Your task to perform on an android device: turn off javascript in the chrome app Image 0: 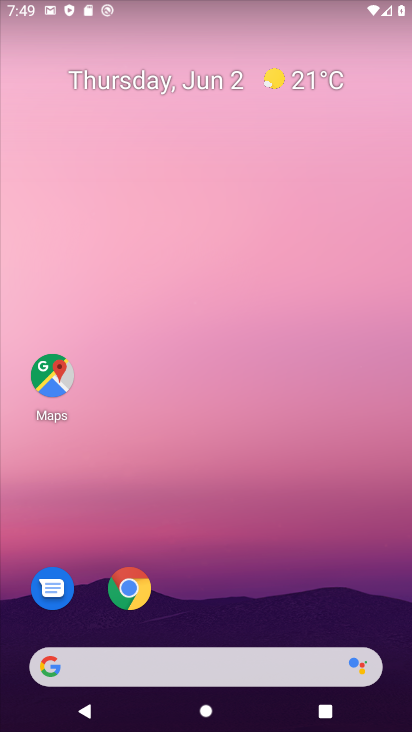
Step 0: click (142, 594)
Your task to perform on an android device: turn off javascript in the chrome app Image 1: 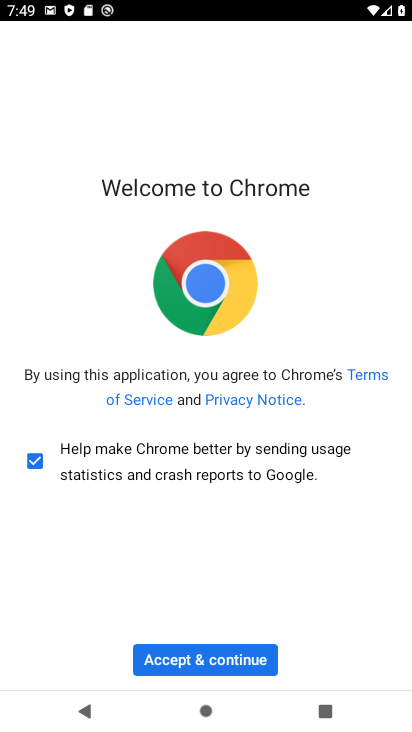
Step 1: click (212, 658)
Your task to perform on an android device: turn off javascript in the chrome app Image 2: 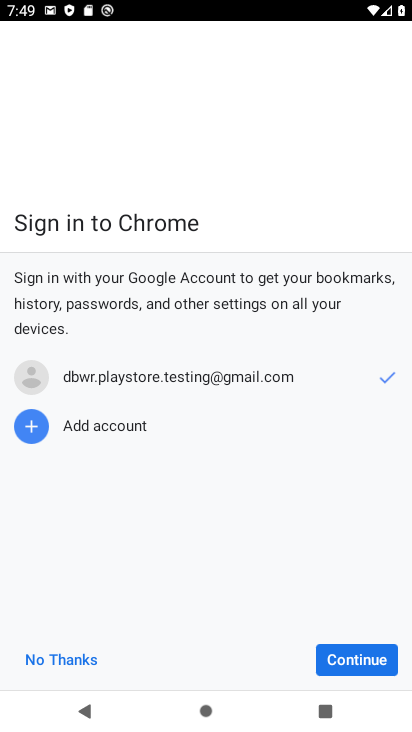
Step 2: click (368, 660)
Your task to perform on an android device: turn off javascript in the chrome app Image 3: 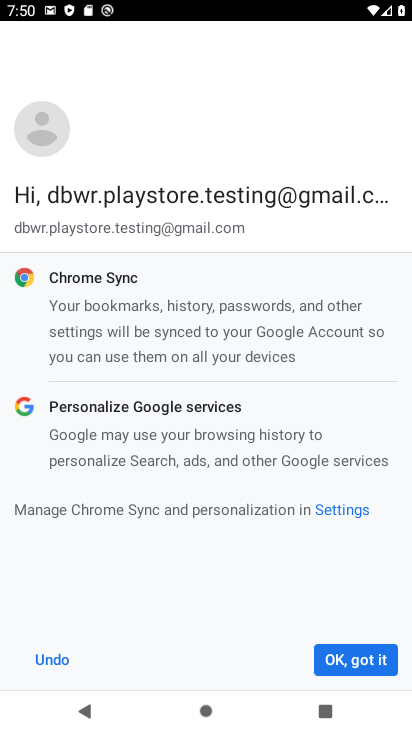
Step 3: click (345, 667)
Your task to perform on an android device: turn off javascript in the chrome app Image 4: 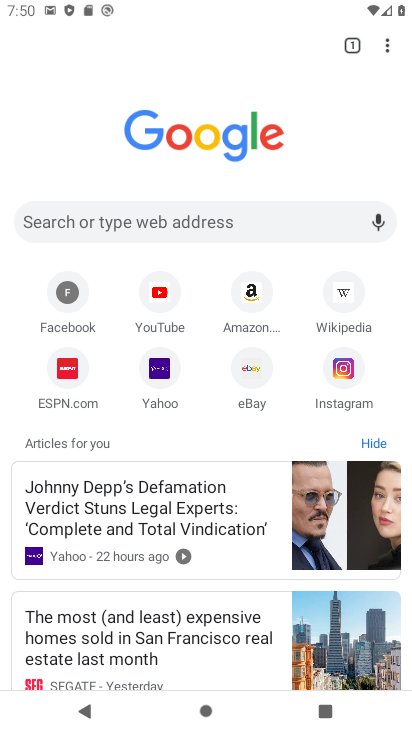
Step 4: drag from (385, 51) to (263, 385)
Your task to perform on an android device: turn off javascript in the chrome app Image 5: 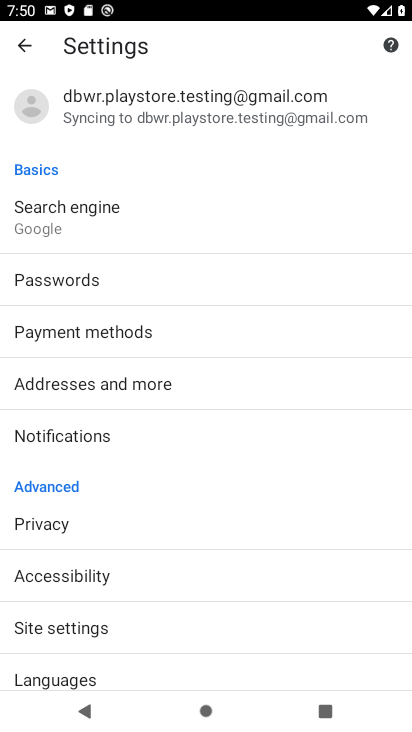
Step 5: click (86, 624)
Your task to perform on an android device: turn off javascript in the chrome app Image 6: 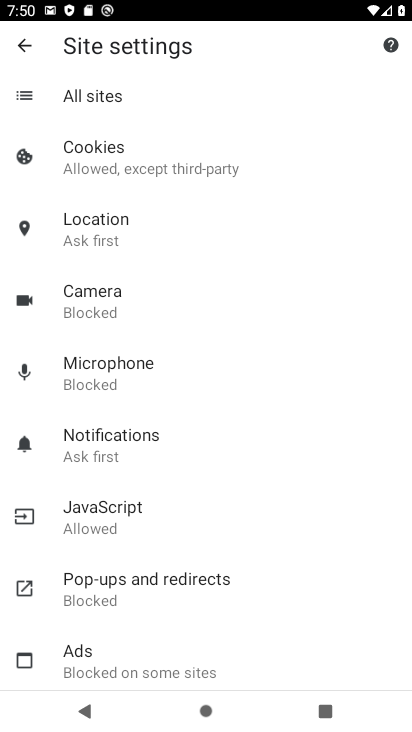
Step 6: click (136, 526)
Your task to perform on an android device: turn off javascript in the chrome app Image 7: 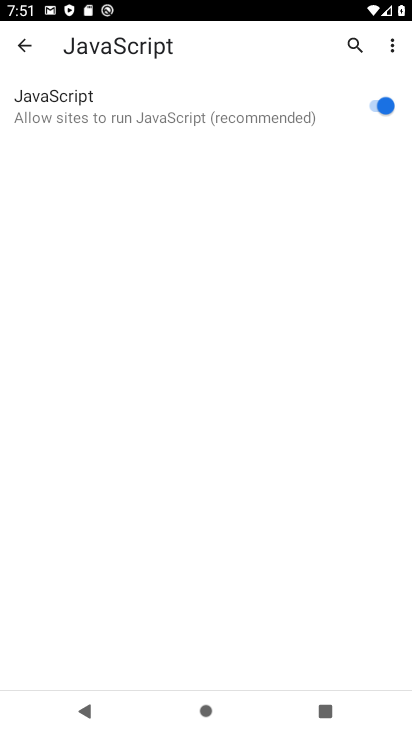
Step 7: click (379, 101)
Your task to perform on an android device: turn off javascript in the chrome app Image 8: 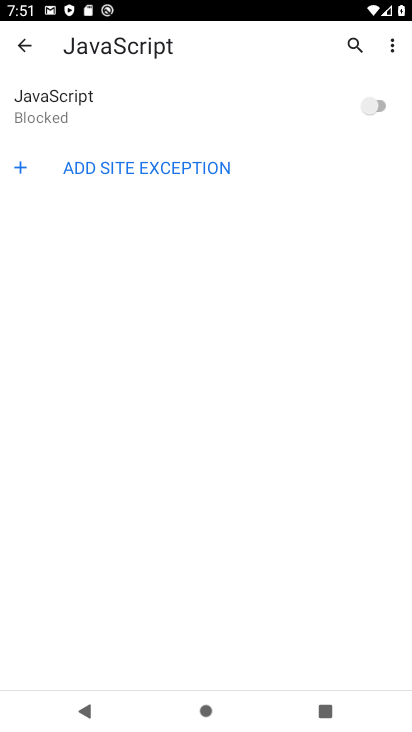
Step 8: task complete